Your task to perform on an android device: Go to notification settings Image 0: 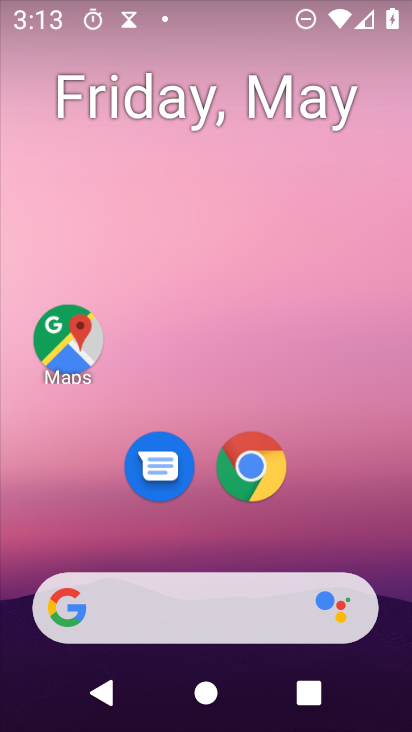
Step 0: drag from (323, 538) to (366, 4)
Your task to perform on an android device: Go to notification settings Image 1: 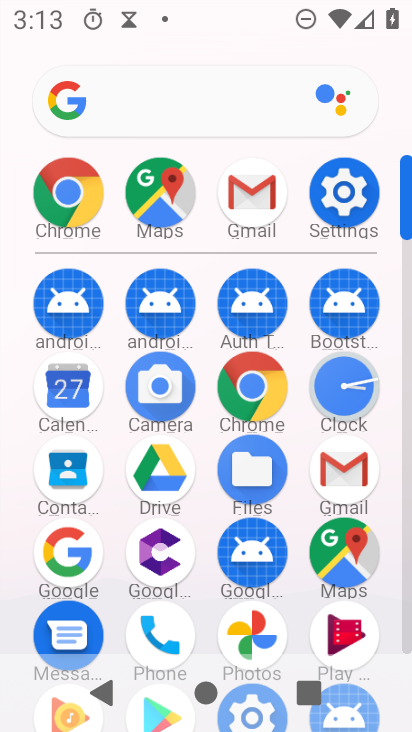
Step 1: click (358, 186)
Your task to perform on an android device: Go to notification settings Image 2: 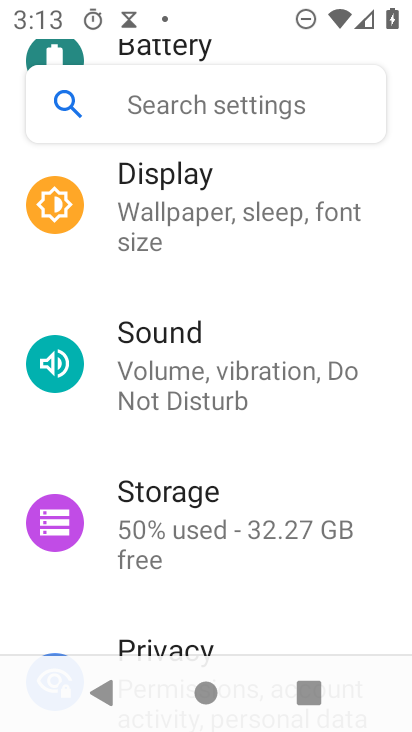
Step 2: drag from (207, 271) to (237, 630)
Your task to perform on an android device: Go to notification settings Image 3: 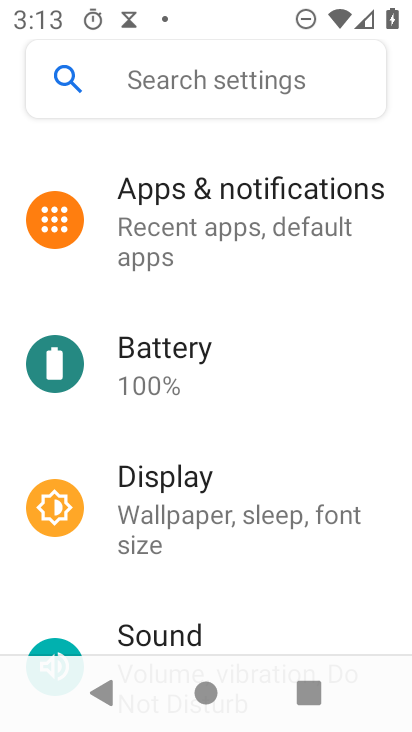
Step 3: click (279, 641)
Your task to perform on an android device: Go to notification settings Image 4: 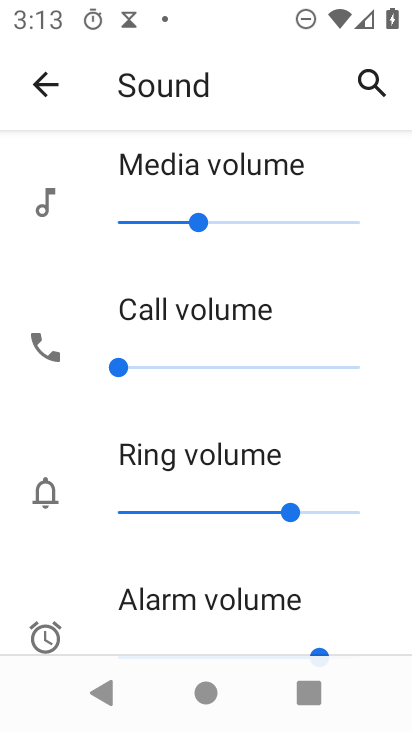
Step 4: click (48, 81)
Your task to perform on an android device: Go to notification settings Image 5: 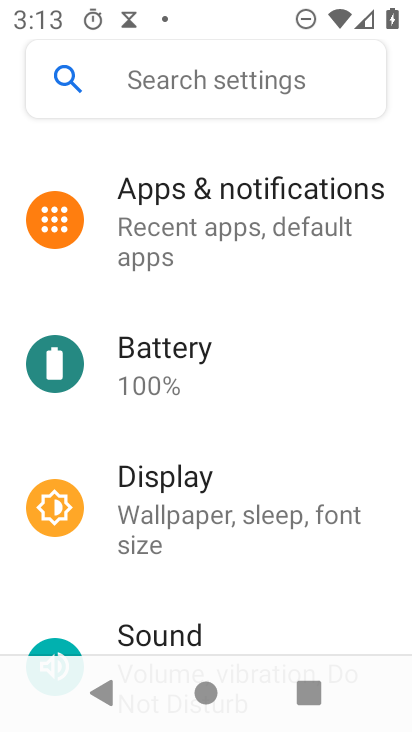
Step 5: click (294, 222)
Your task to perform on an android device: Go to notification settings Image 6: 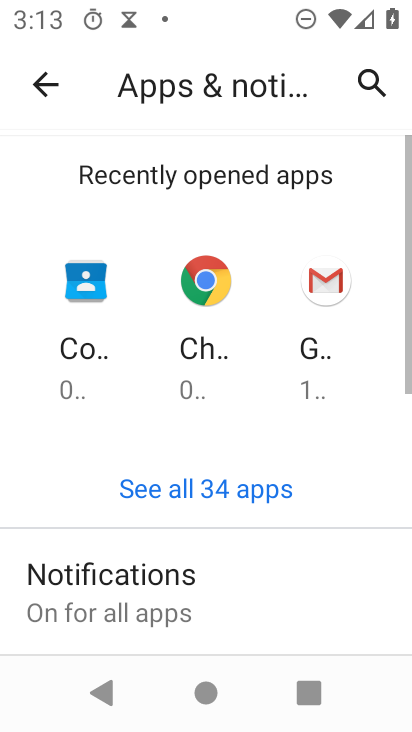
Step 6: drag from (110, 599) to (131, 254)
Your task to perform on an android device: Go to notification settings Image 7: 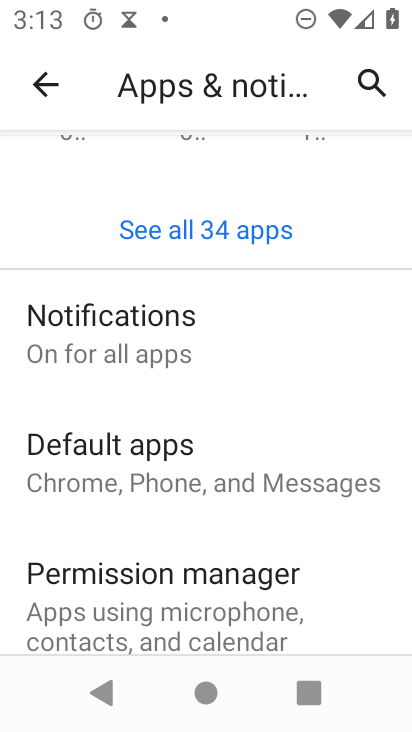
Step 7: click (126, 295)
Your task to perform on an android device: Go to notification settings Image 8: 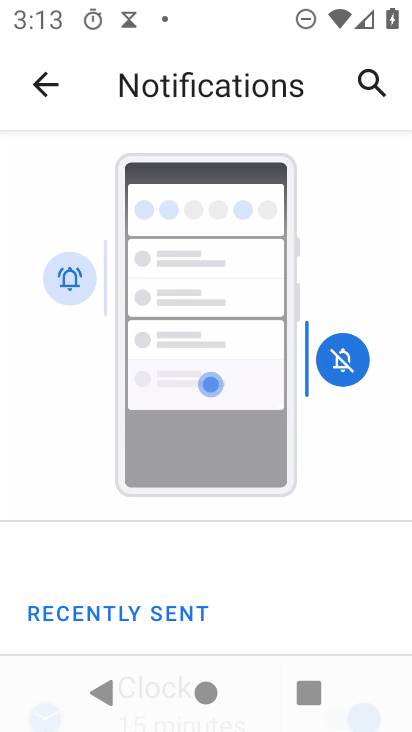
Step 8: task complete